Your task to perform on an android device: turn vacation reply on in the gmail app Image 0: 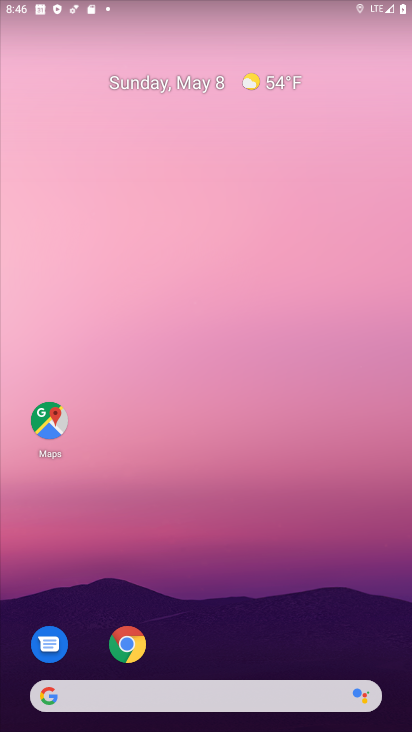
Step 0: drag from (236, 665) to (241, 259)
Your task to perform on an android device: turn vacation reply on in the gmail app Image 1: 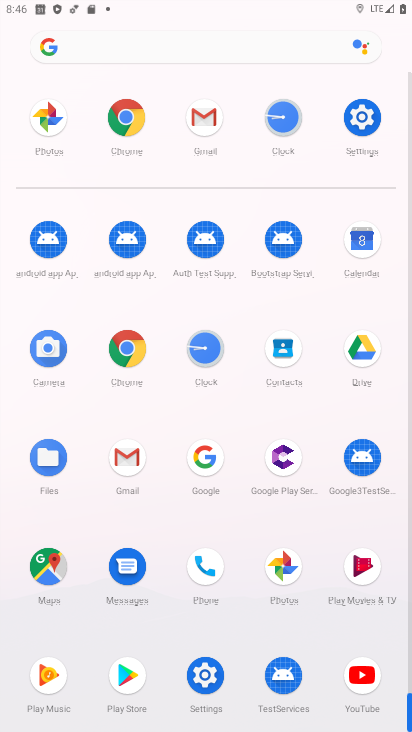
Step 1: click (117, 461)
Your task to perform on an android device: turn vacation reply on in the gmail app Image 2: 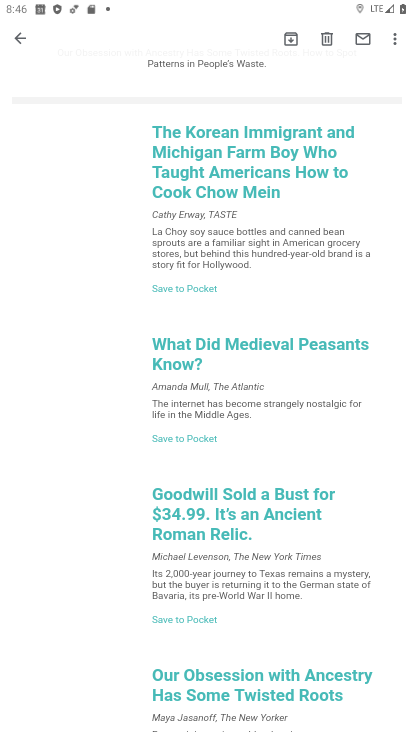
Step 2: click (20, 36)
Your task to perform on an android device: turn vacation reply on in the gmail app Image 3: 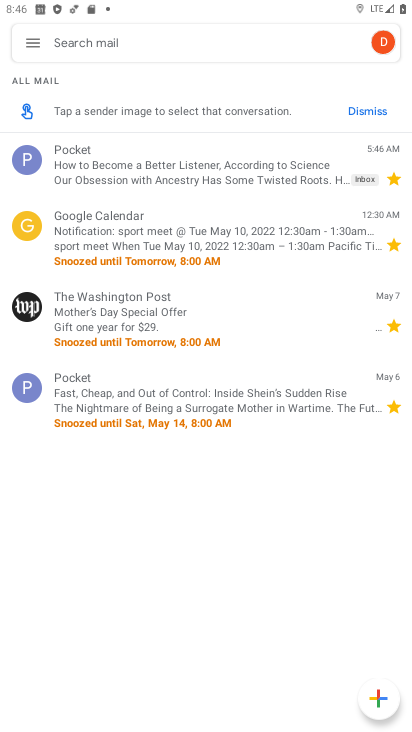
Step 3: click (21, 40)
Your task to perform on an android device: turn vacation reply on in the gmail app Image 4: 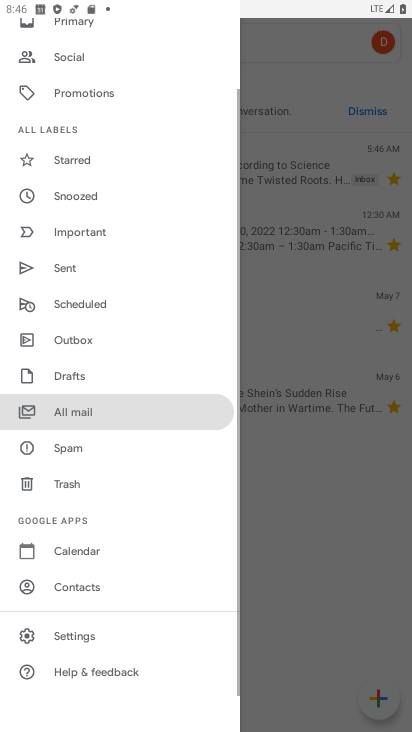
Step 4: click (99, 639)
Your task to perform on an android device: turn vacation reply on in the gmail app Image 5: 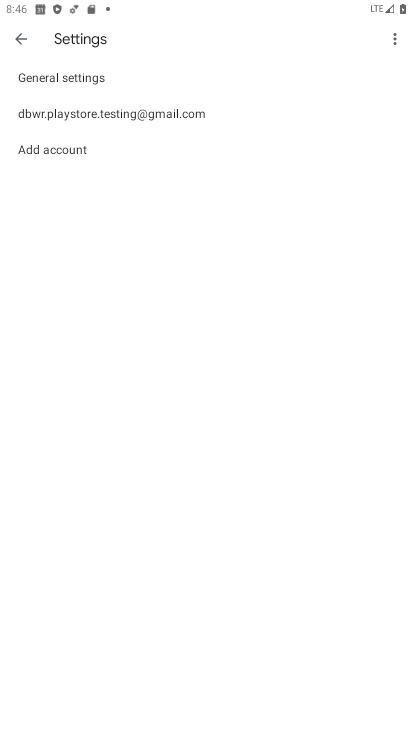
Step 5: click (184, 111)
Your task to perform on an android device: turn vacation reply on in the gmail app Image 6: 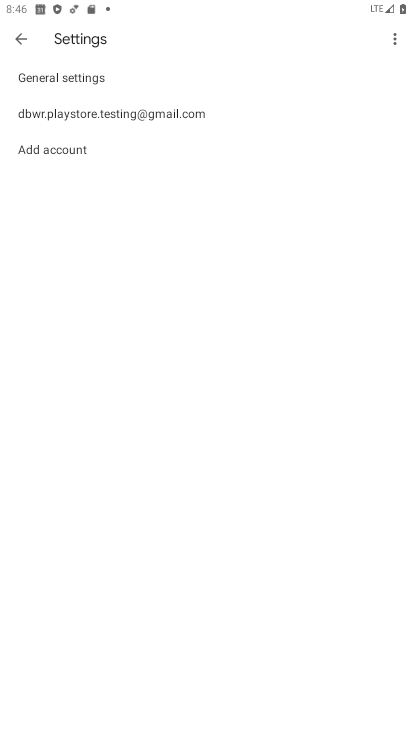
Step 6: click (185, 111)
Your task to perform on an android device: turn vacation reply on in the gmail app Image 7: 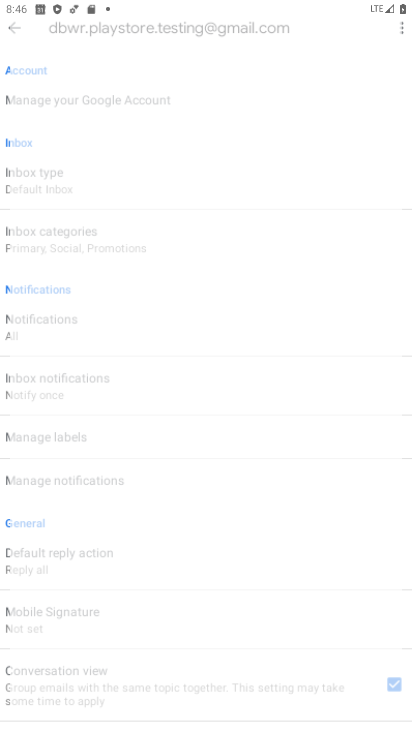
Step 7: drag from (211, 595) to (282, 151)
Your task to perform on an android device: turn vacation reply on in the gmail app Image 8: 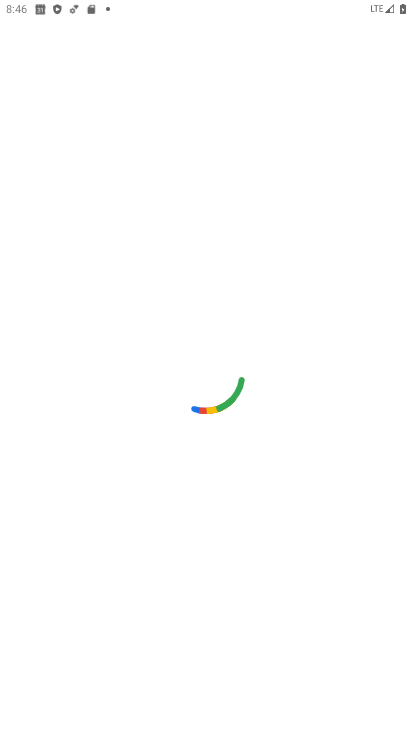
Step 8: press back button
Your task to perform on an android device: turn vacation reply on in the gmail app Image 9: 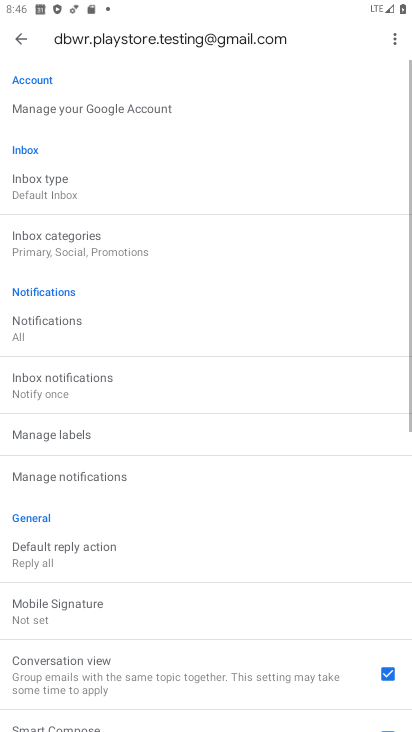
Step 9: drag from (203, 637) to (290, 200)
Your task to perform on an android device: turn vacation reply on in the gmail app Image 10: 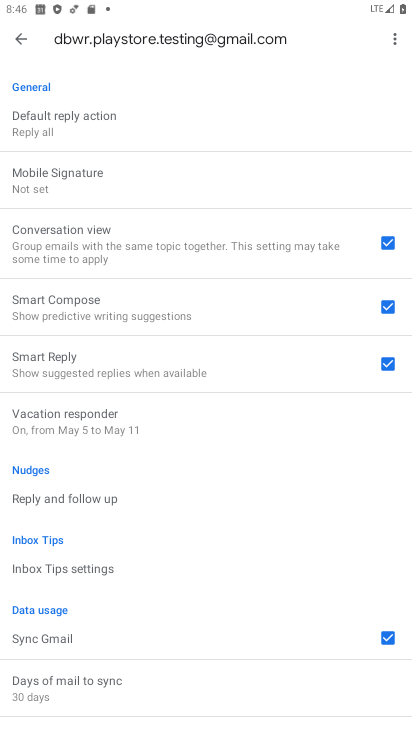
Step 10: click (105, 422)
Your task to perform on an android device: turn vacation reply on in the gmail app Image 11: 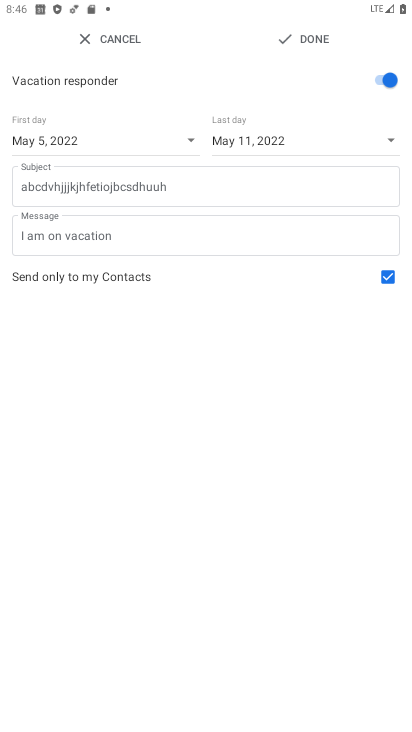
Step 11: click (303, 31)
Your task to perform on an android device: turn vacation reply on in the gmail app Image 12: 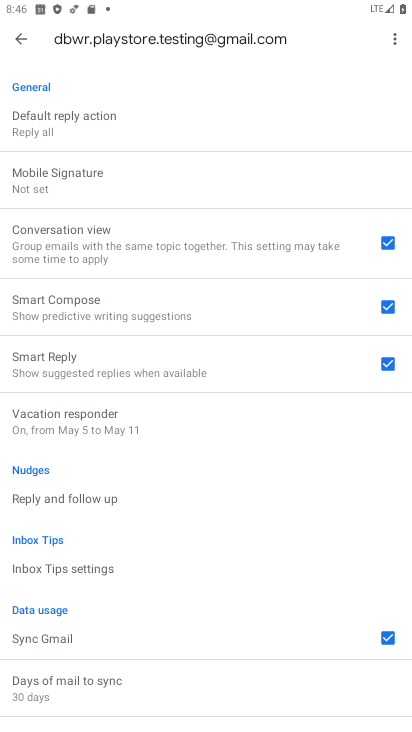
Step 12: task complete